Your task to perform on an android device: Go to network settings Image 0: 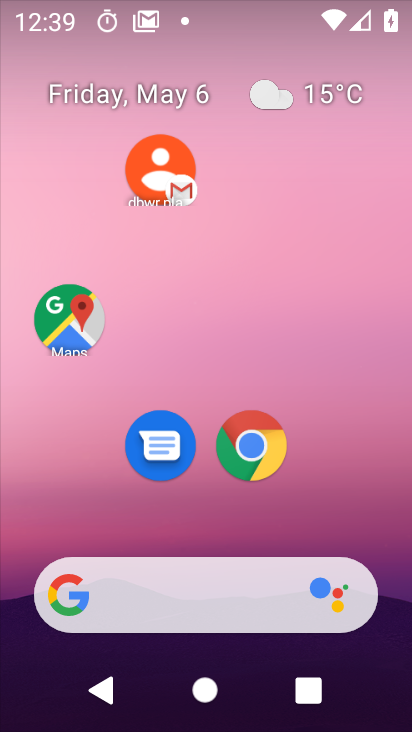
Step 0: drag from (370, 604) to (241, 138)
Your task to perform on an android device: Go to network settings Image 1: 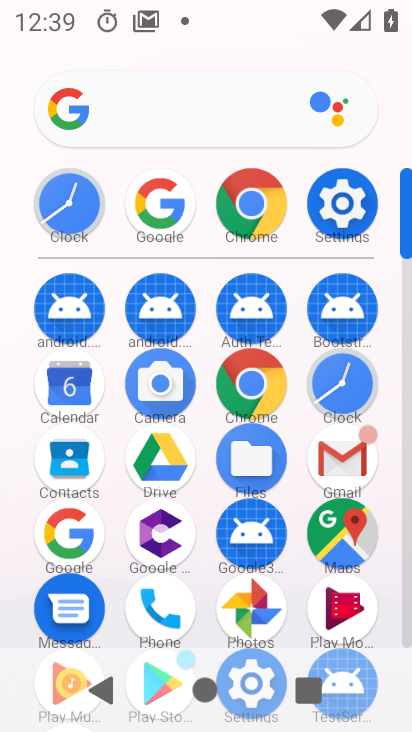
Step 1: click (332, 212)
Your task to perform on an android device: Go to network settings Image 2: 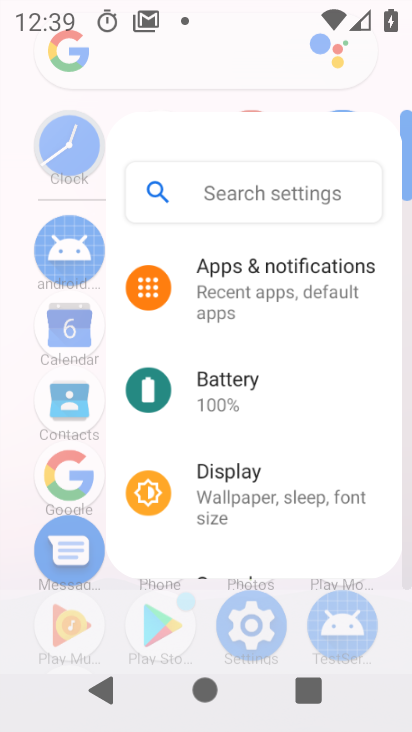
Step 2: click (332, 212)
Your task to perform on an android device: Go to network settings Image 3: 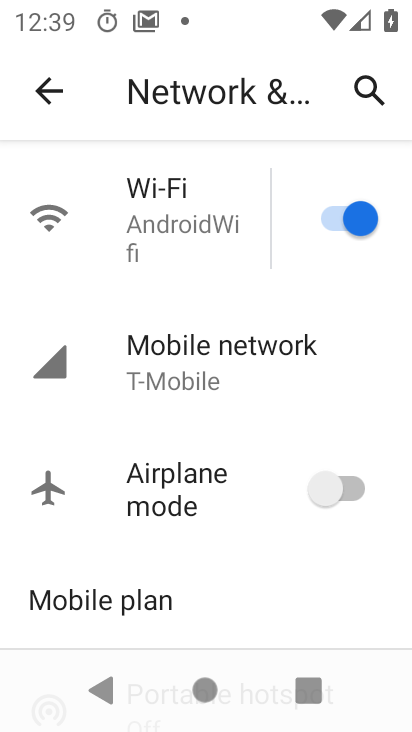
Step 3: task complete